Your task to perform on an android device: turn off javascript in the chrome app Image 0: 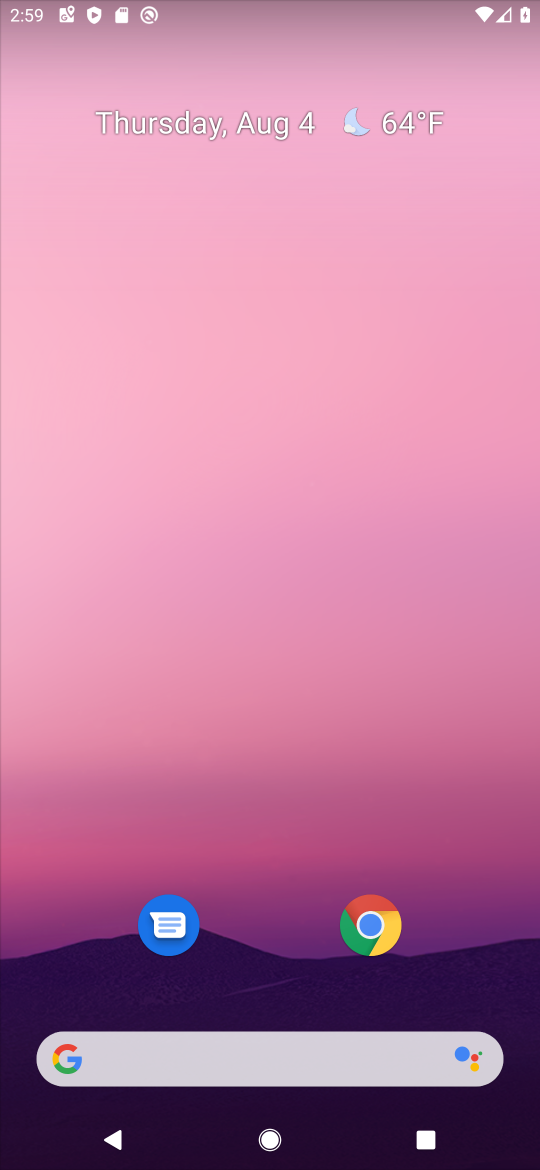
Step 0: click (361, 934)
Your task to perform on an android device: turn off javascript in the chrome app Image 1: 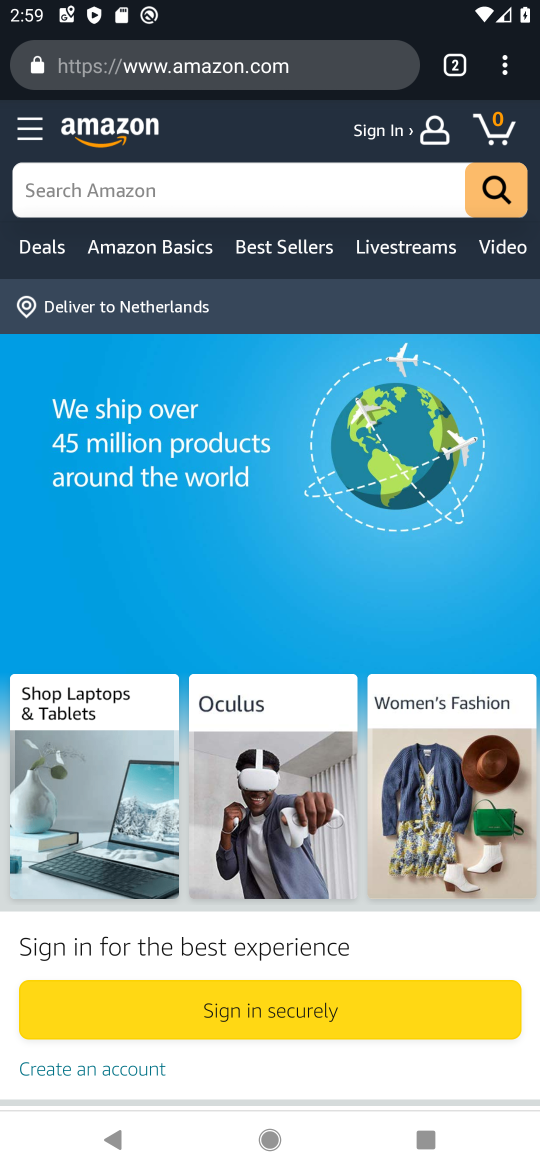
Step 1: click (508, 67)
Your task to perform on an android device: turn off javascript in the chrome app Image 2: 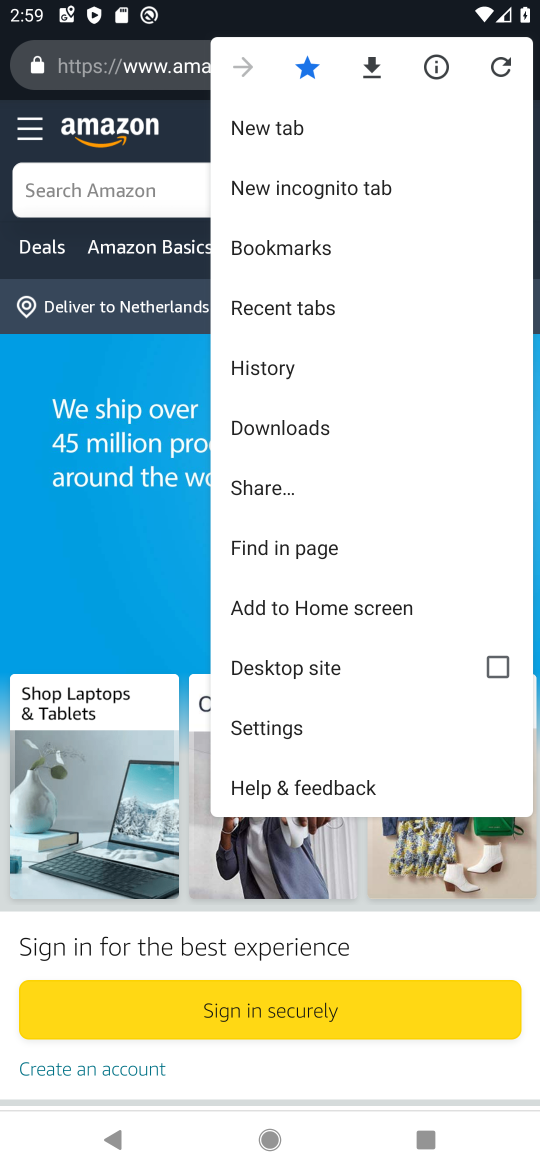
Step 2: click (269, 727)
Your task to perform on an android device: turn off javascript in the chrome app Image 3: 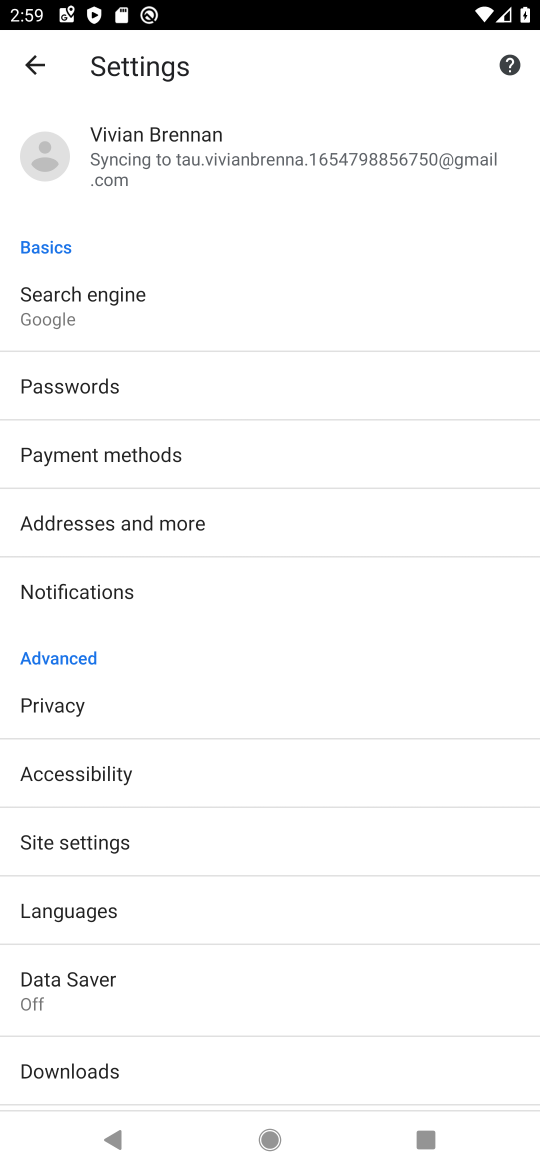
Step 3: click (259, 846)
Your task to perform on an android device: turn off javascript in the chrome app Image 4: 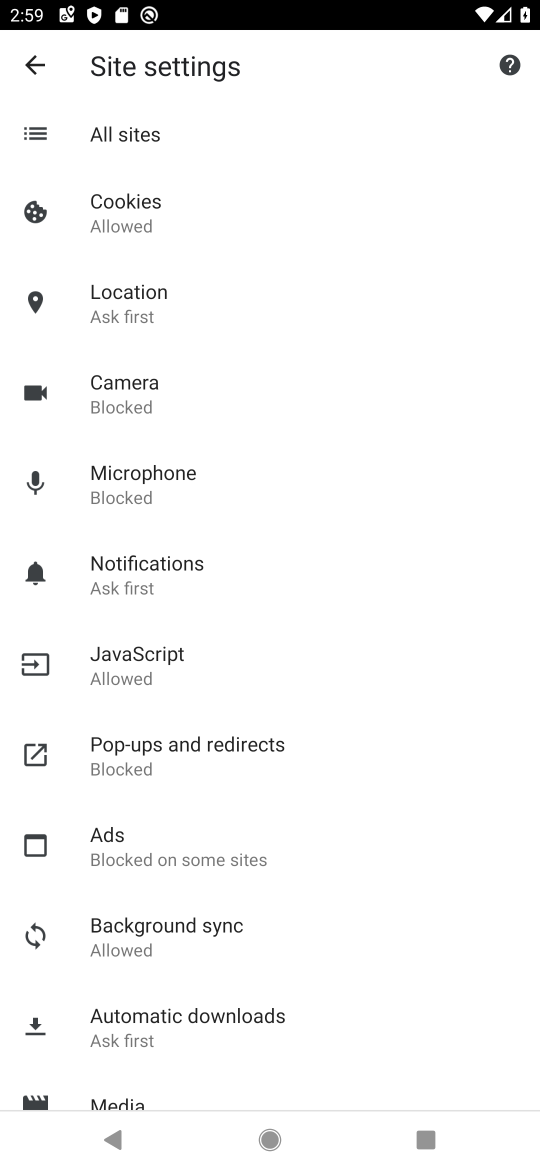
Step 4: drag from (452, 789) to (404, 87)
Your task to perform on an android device: turn off javascript in the chrome app Image 5: 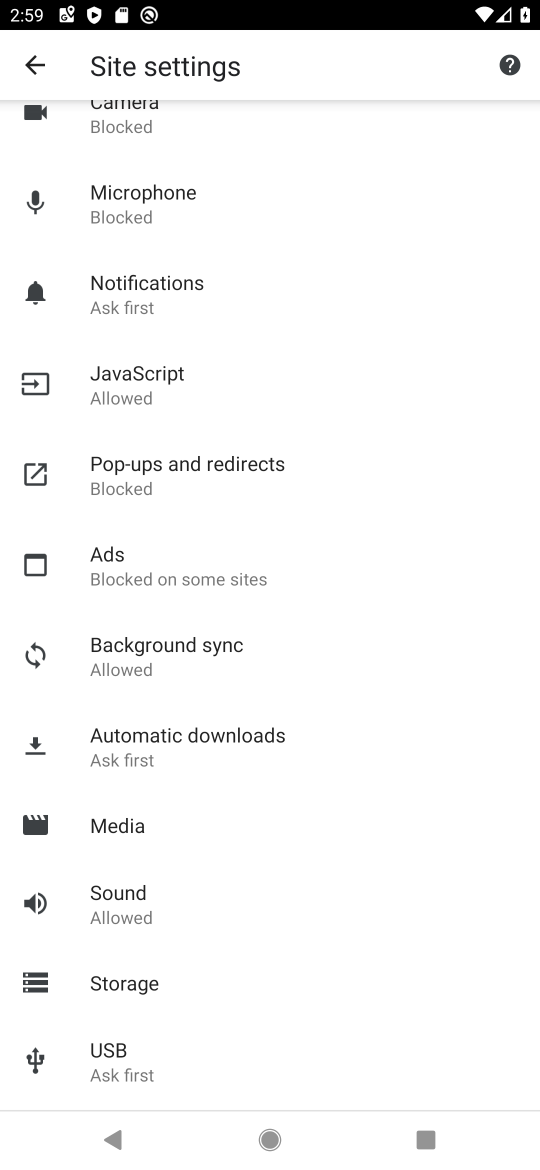
Step 5: click (151, 372)
Your task to perform on an android device: turn off javascript in the chrome app Image 6: 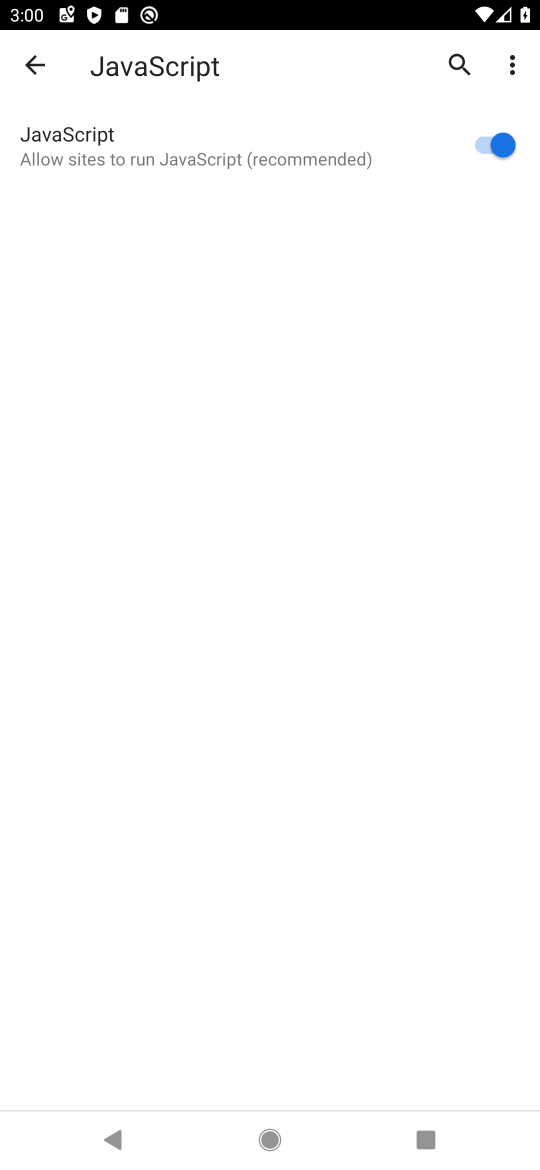
Step 6: click (487, 145)
Your task to perform on an android device: turn off javascript in the chrome app Image 7: 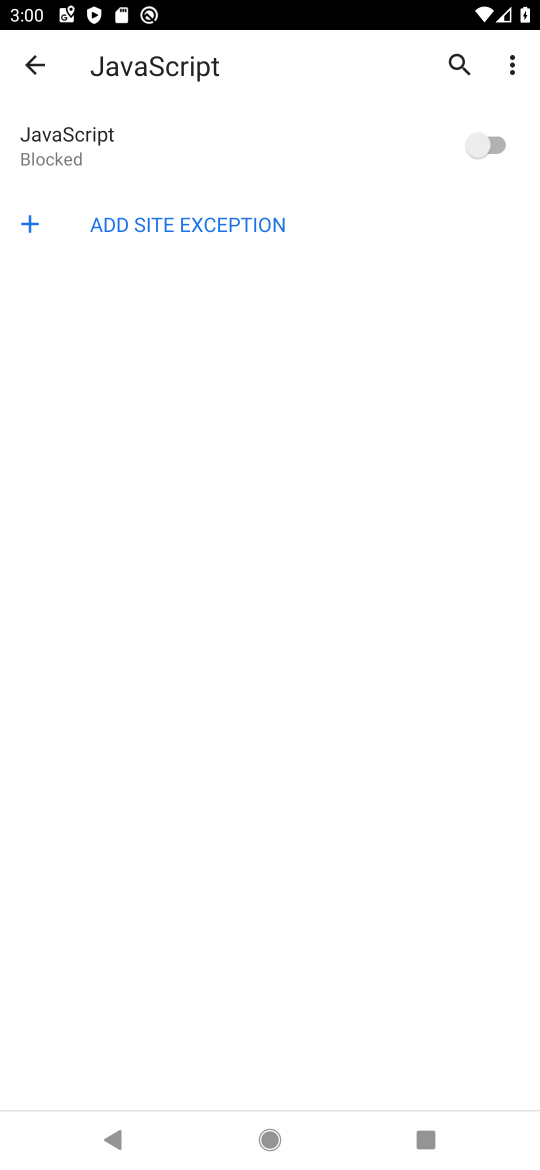
Step 7: task complete